Your task to perform on an android device: What's the weather today? Image 0: 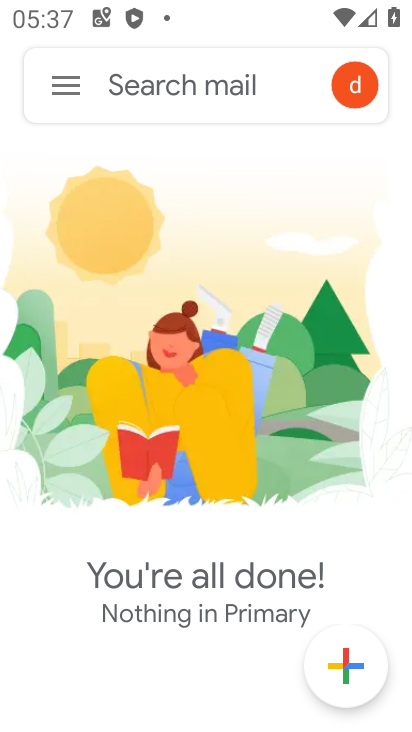
Step 0: press home button
Your task to perform on an android device: What's the weather today? Image 1: 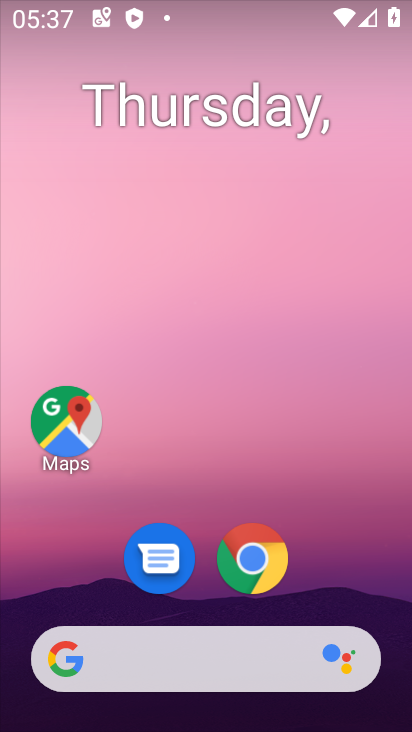
Step 1: drag from (319, 573) to (239, 151)
Your task to perform on an android device: What's the weather today? Image 2: 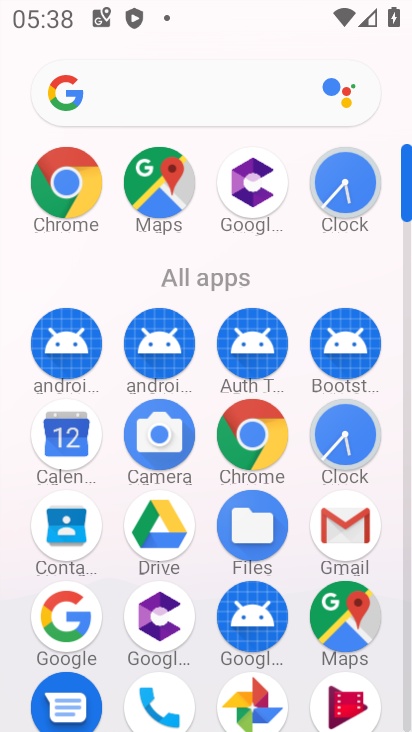
Step 2: click (66, 619)
Your task to perform on an android device: What's the weather today? Image 3: 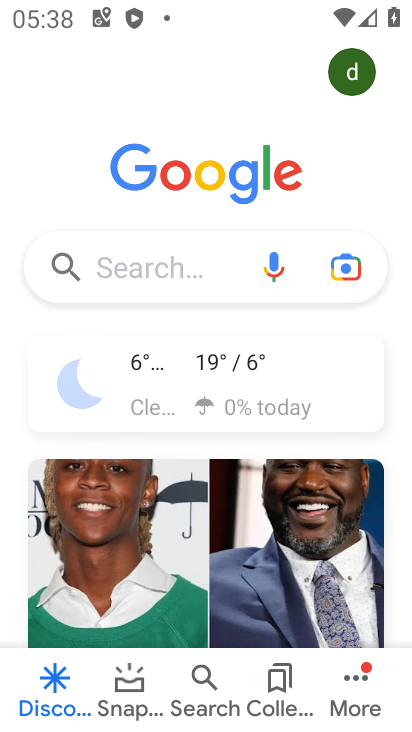
Step 3: click (190, 281)
Your task to perform on an android device: What's the weather today? Image 4: 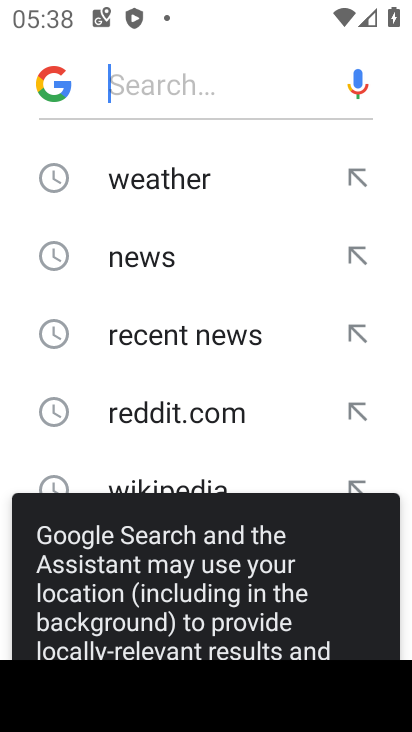
Step 4: click (128, 192)
Your task to perform on an android device: What's the weather today? Image 5: 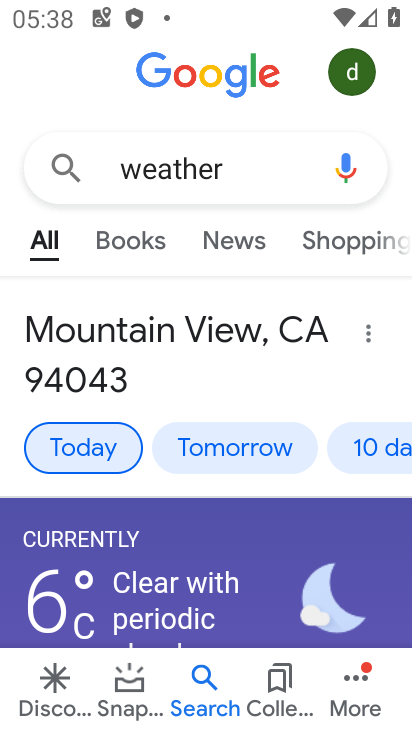
Step 5: task complete